Your task to perform on an android device: What is the news today? Image 0: 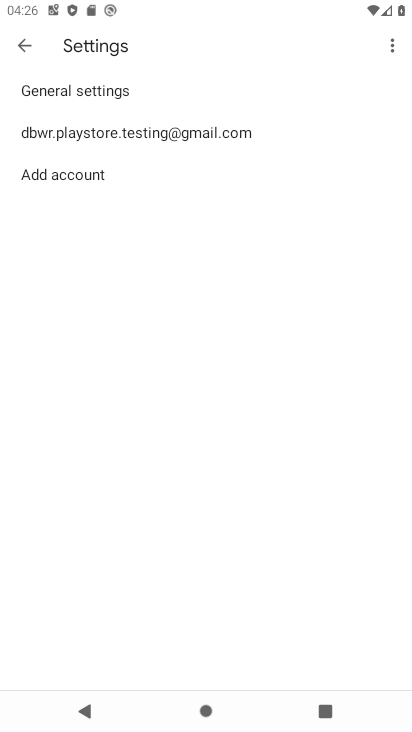
Step 0: press back button
Your task to perform on an android device: What is the news today? Image 1: 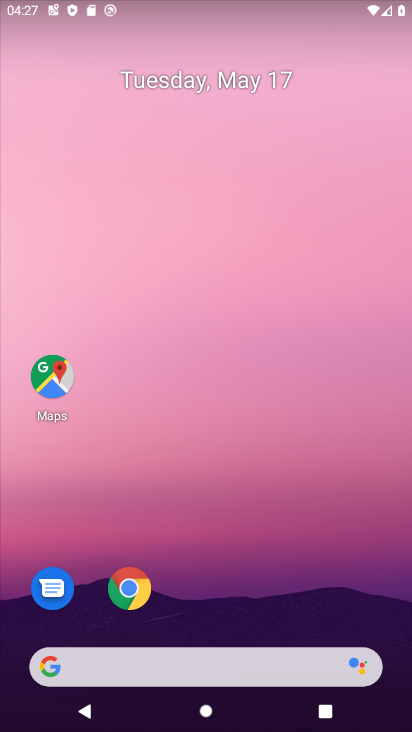
Step 1: drag from (230, 546) to (198, 67)
Your task to perform on an android device: What is the news today? Image 2: 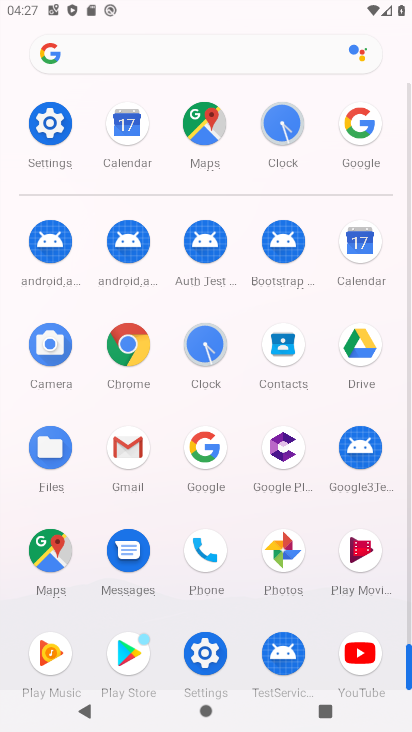
Step 2: click (203, 446)
Your task to perform on an android device: What is the news today? Image 3: 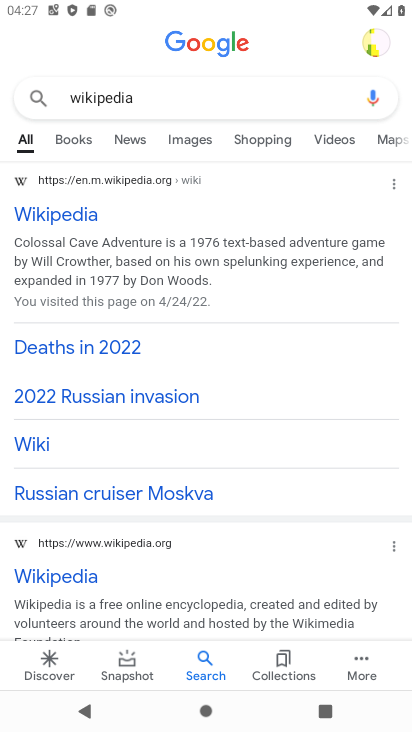
Step 3: click (181, 79)
Your task to perform on an android device: What is the news today? Image 4: 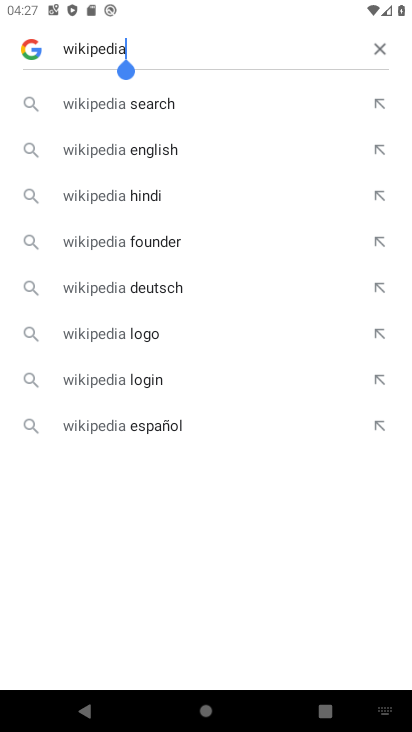
Step 4: click (377, 43)
Your task to perform on an android device: What is the news today? Image 5: 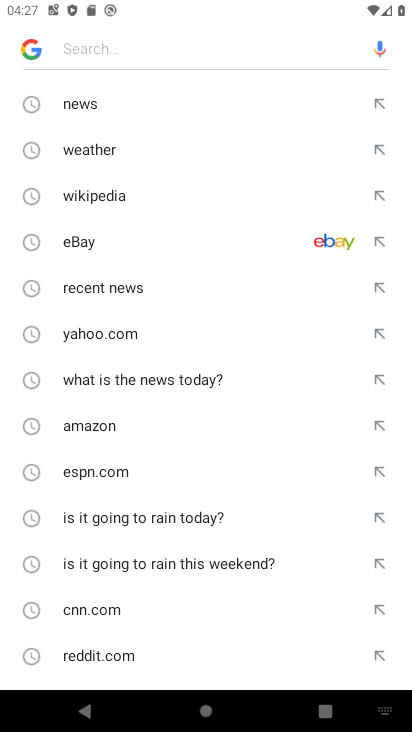
Step 5: click (77, 102)
Your task to perform on an android device: What is the news today? Image 6: 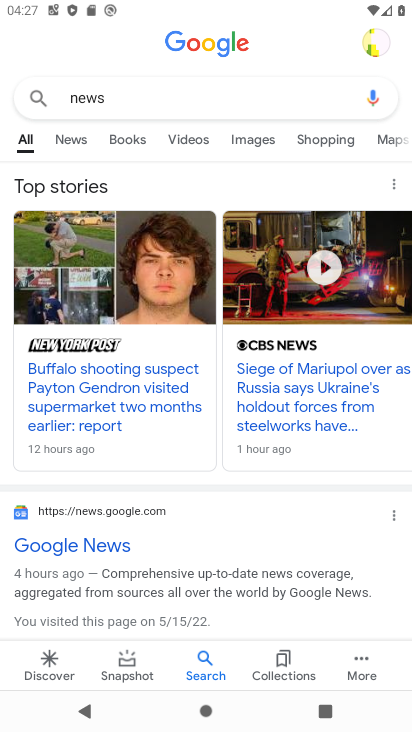
Step 6: task complete